Your task to perform on an android device: Open Chrome and go to the settings page Image 0: 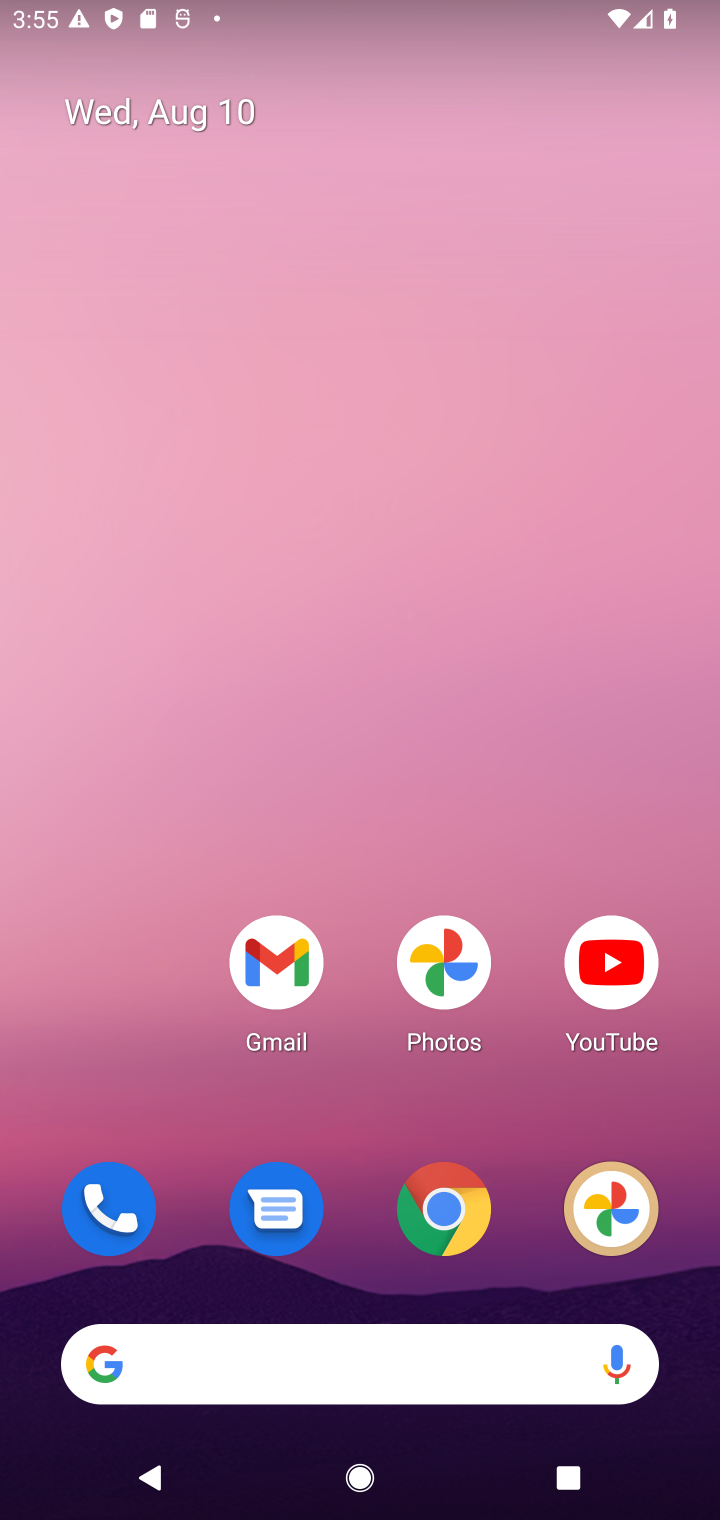
Step 0: click (442, 1227)
Your task to perform on an android device: Open Chrome and go to the settings page Image 1: 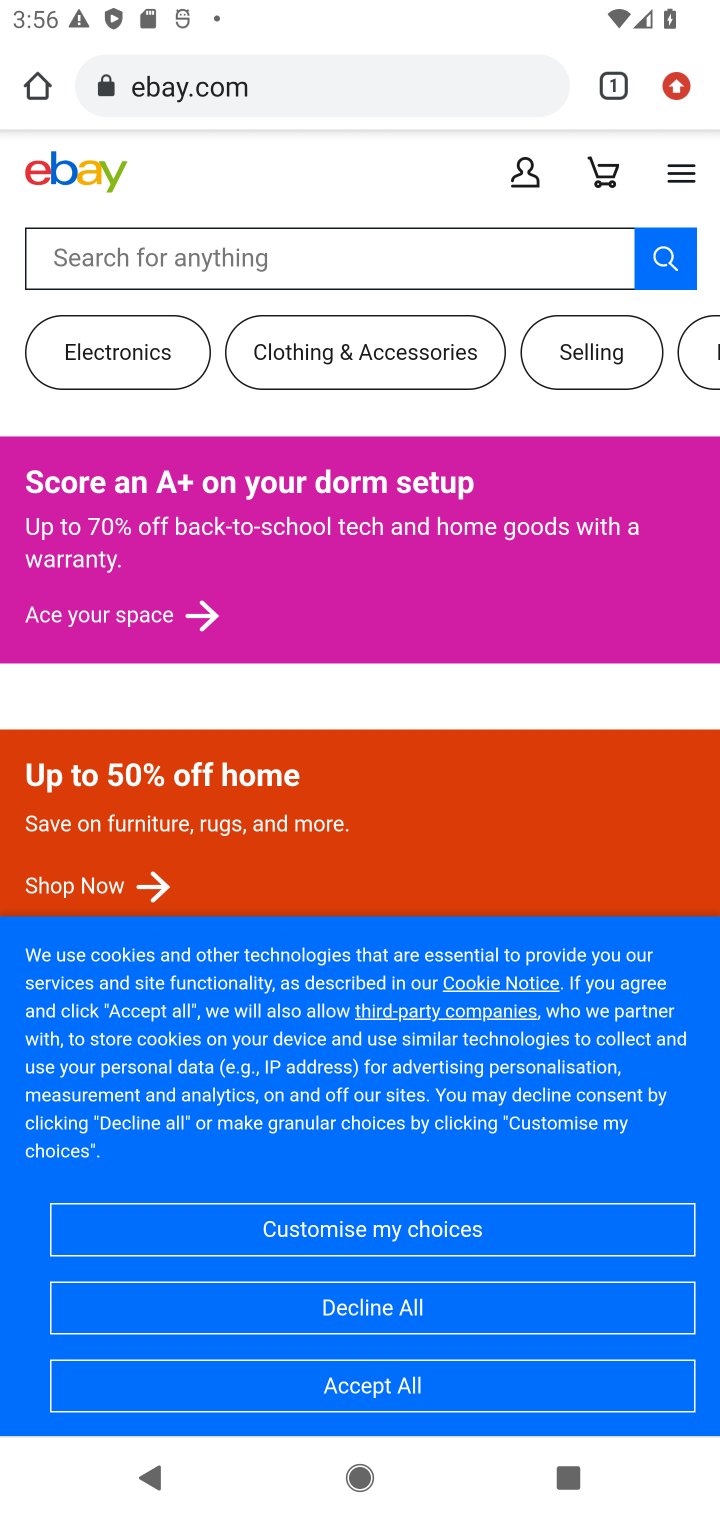
Step 1: click (676, 80)
Your task to perform on an android device: Open Chrome and go to the settings page Image 2: 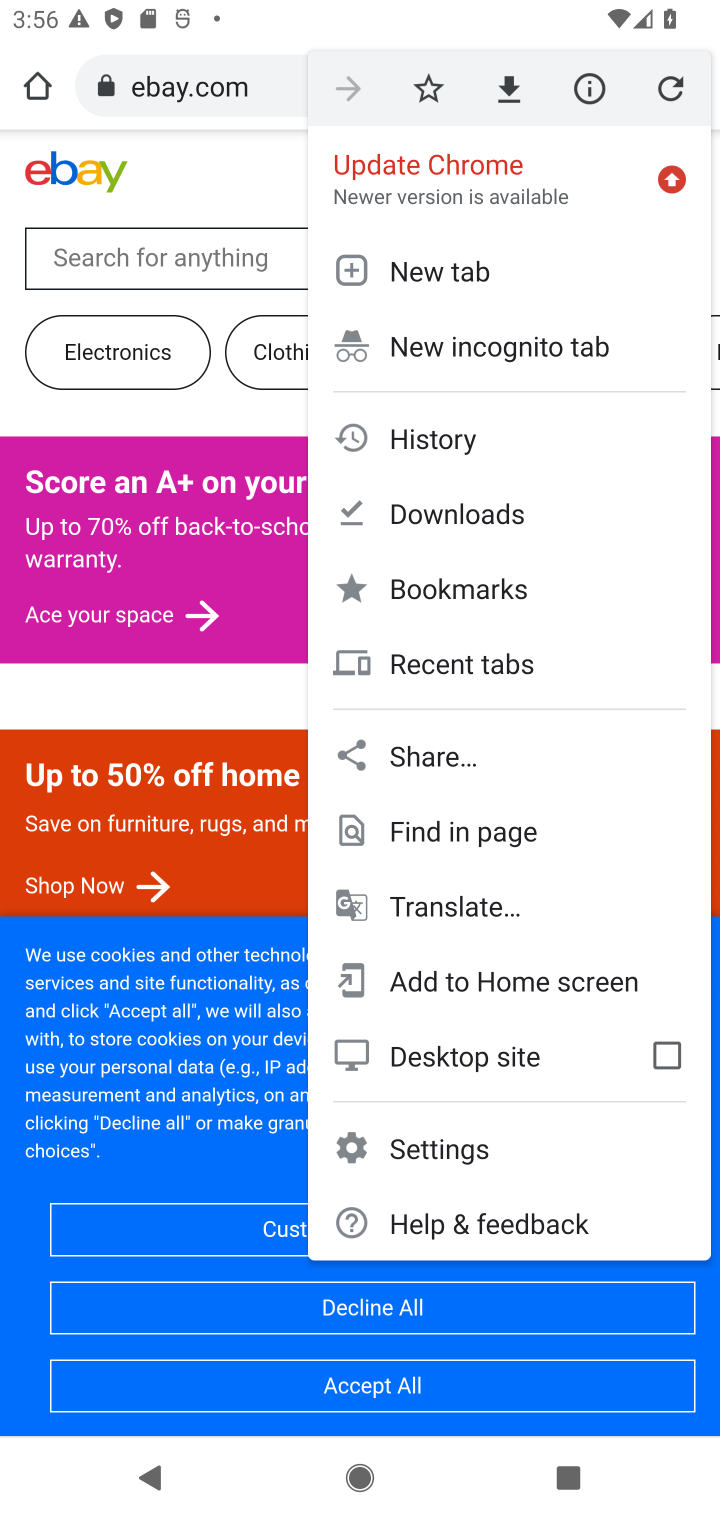
Step 2: click (456, 1137)
Your task to perform on an android device: Open Chrome and go to the settings page Image 3: 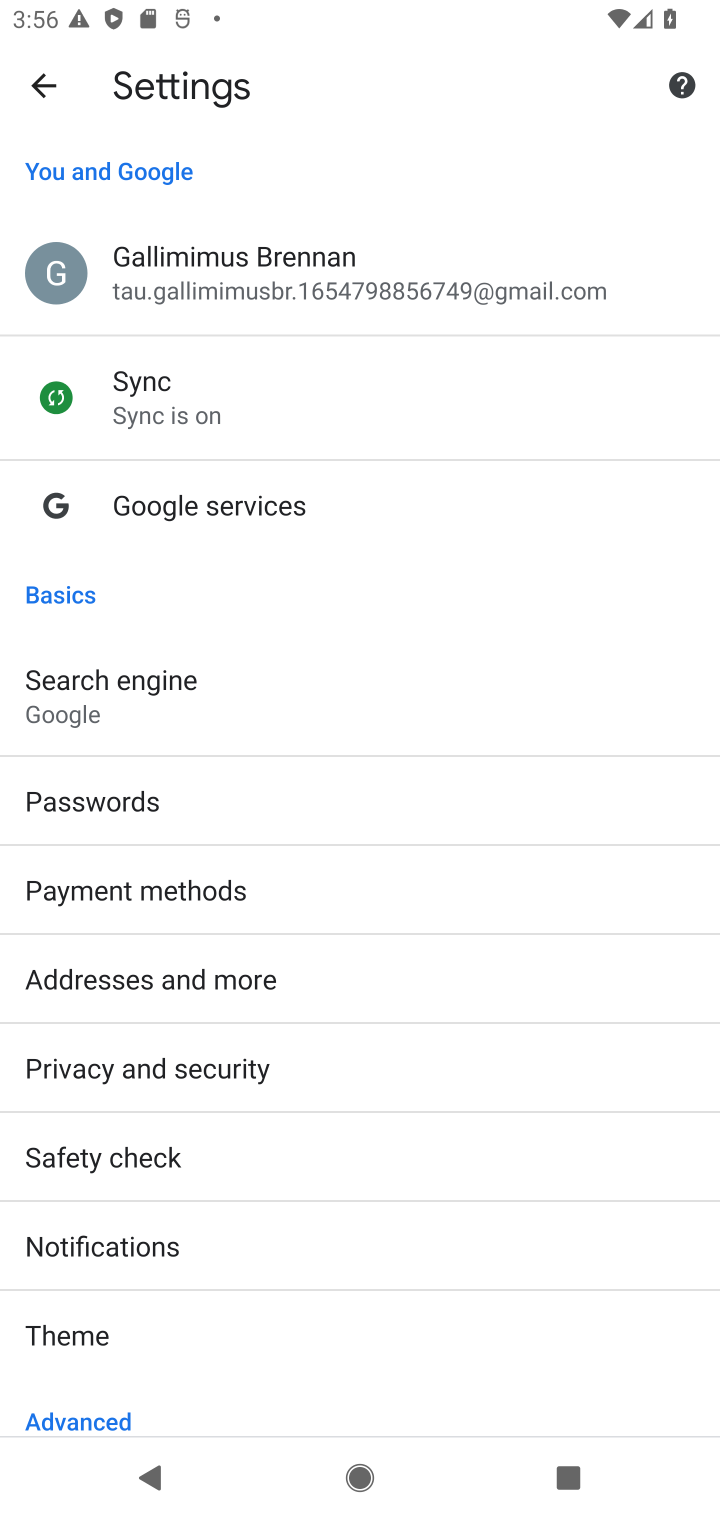
Step 3: task complete